Your task to perform on an android device: check out phone information Image 0: 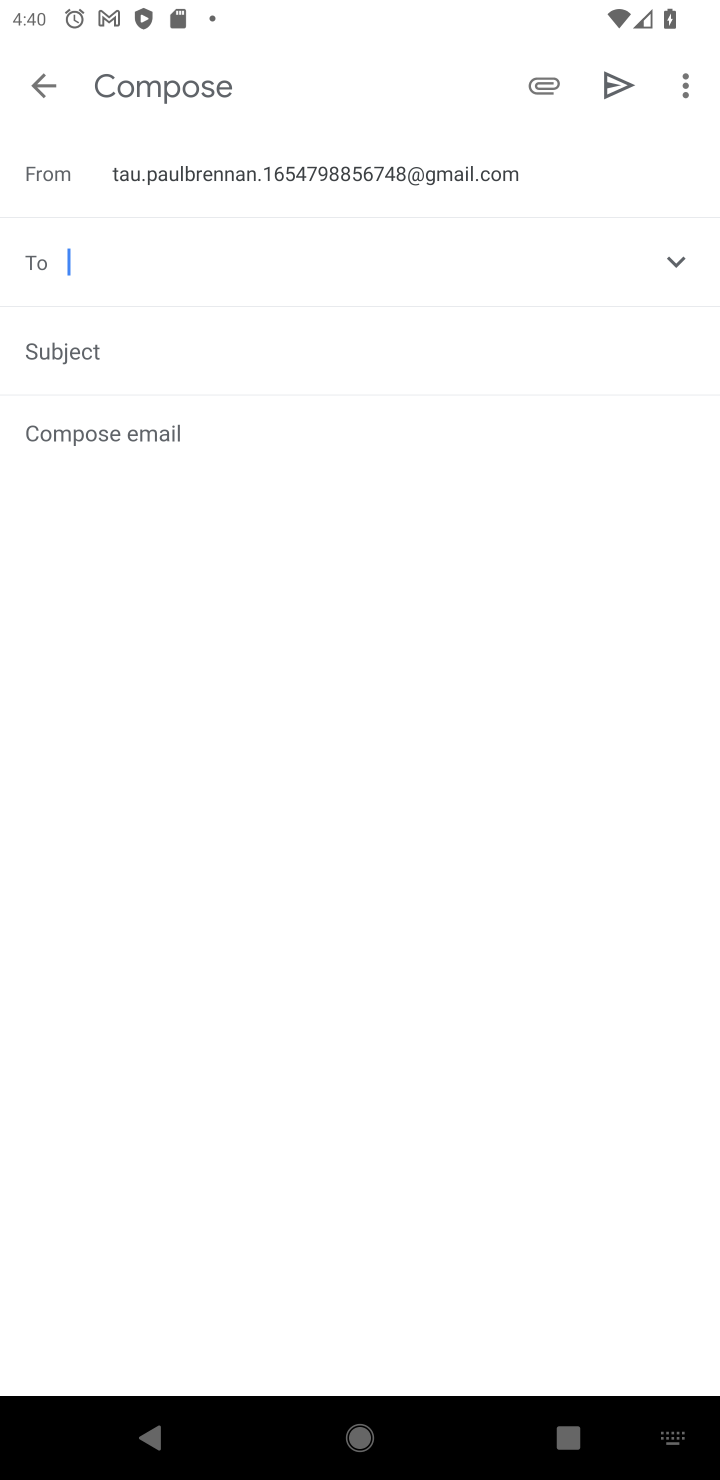
Step 0: press home button
Your task to perform on an android device: check out phone information Image 1: 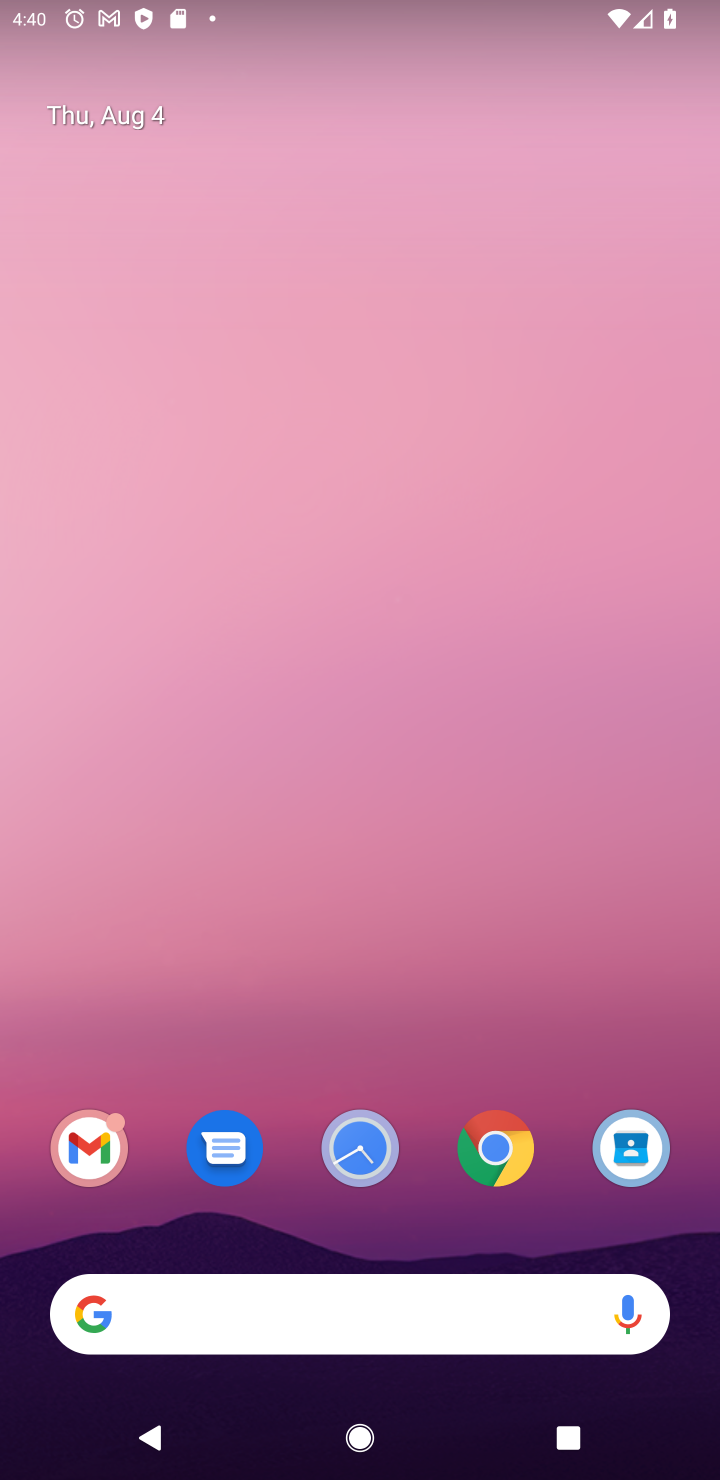
Step 1: drag from (555, 1238) to (534, 85)
Your task to perform on an android device: check out phone information Image 2: 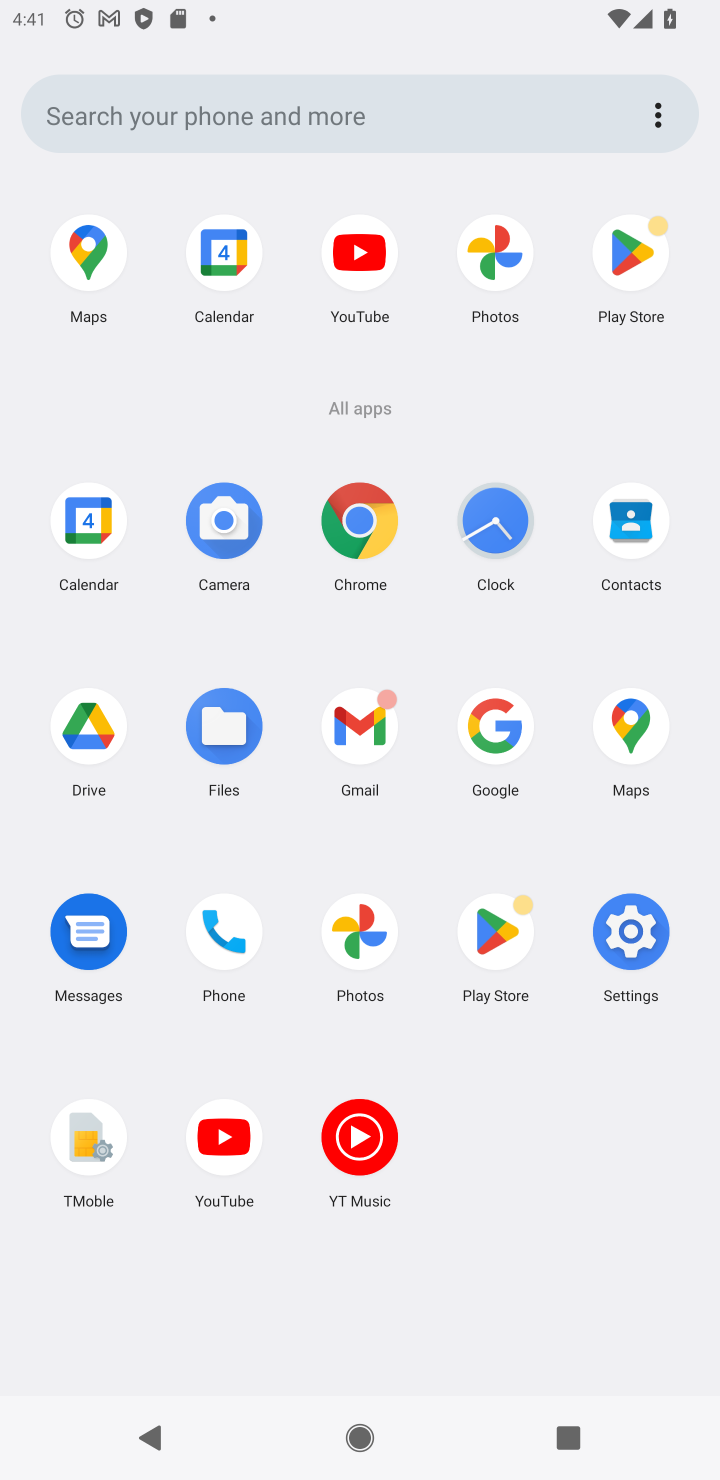
Step 2: click (634, 930)
Your task to perform on an android device: check out phone information Image 3: 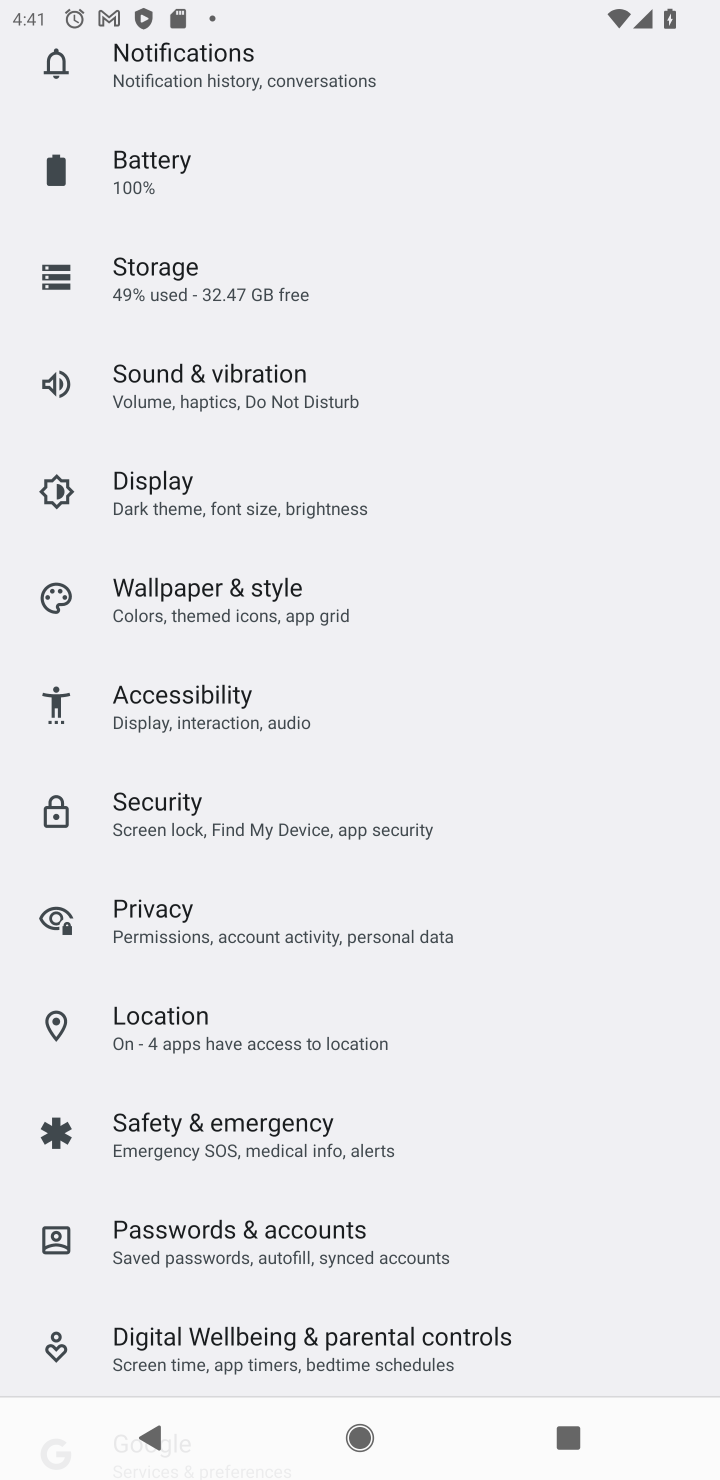
Step 3: drag from (477, 1279) to (533, 342)
Your task to perform on an android device: check out phone information Image 4: 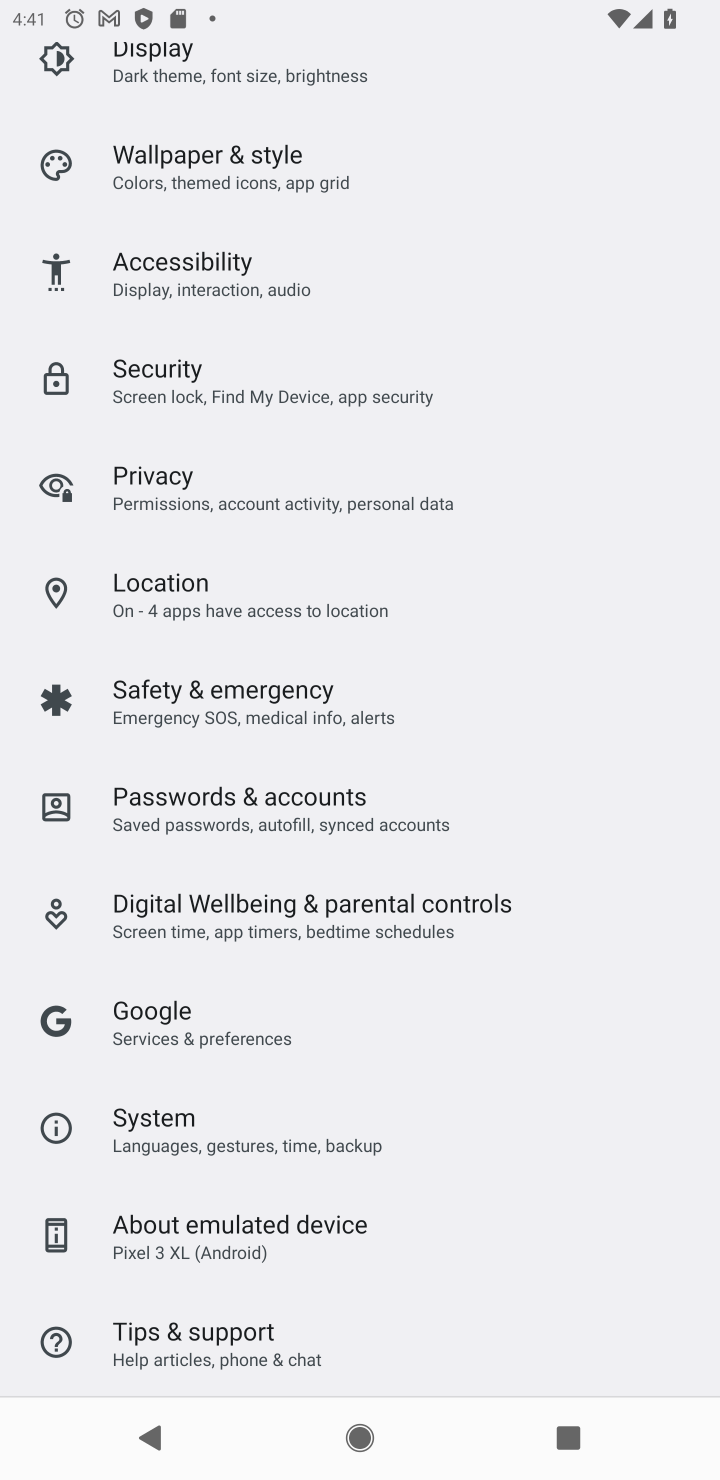
Step 4: drag from (465, 1305) to (477, 590)
Your task to perform on an android device: check out phone information Image 5: 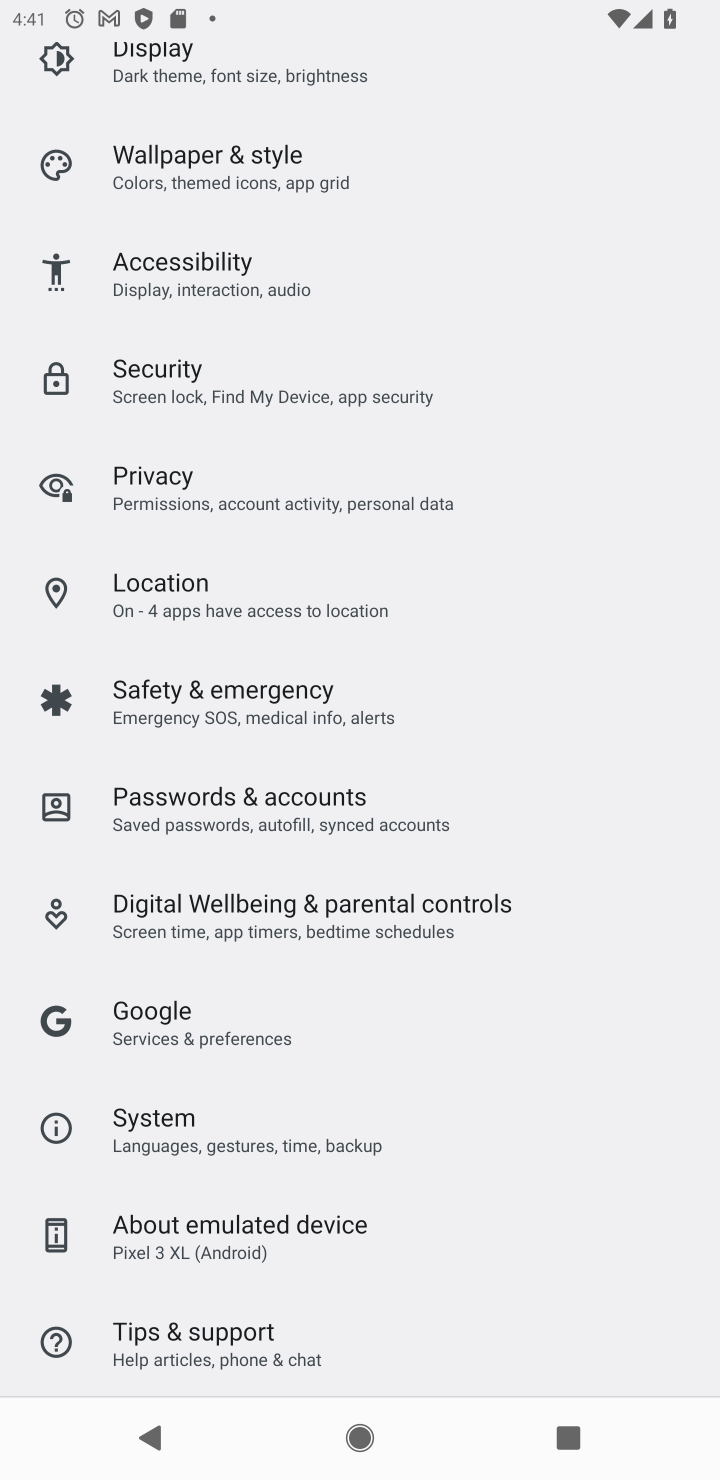
Step 5: click (174, 1214)
Your task to perform on an android device: check out phone information Image 6: 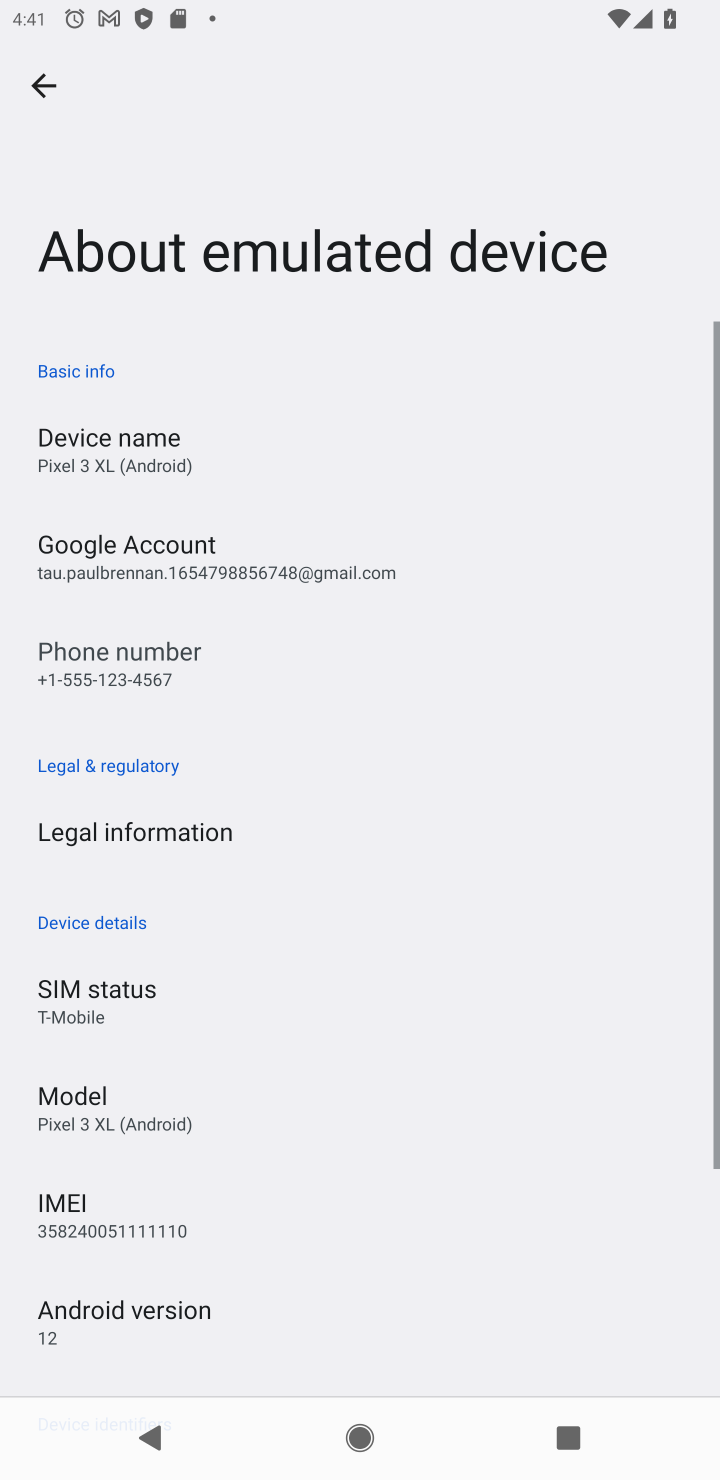
Step 6: task complete